Your task to perform on an android device: open the mobile data screen to see how much data has been used Image 0: 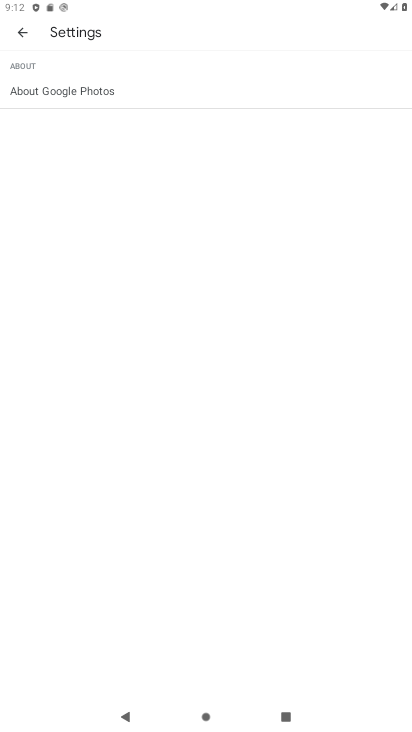
Step 0: press home button
Your task to perform on an android device: open the mobile data screen to see how much data has been used Image 1: 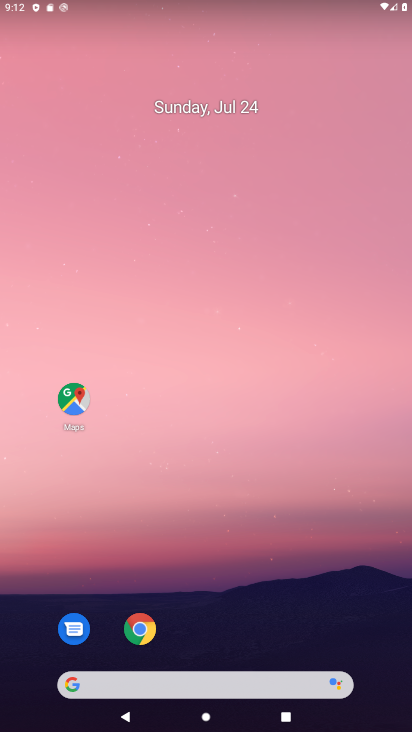
Step 1: drag from (188, 650) to (173, 45)
Your task to perform on an android device: open the mobile data screen to see how much data has been used Image 2: 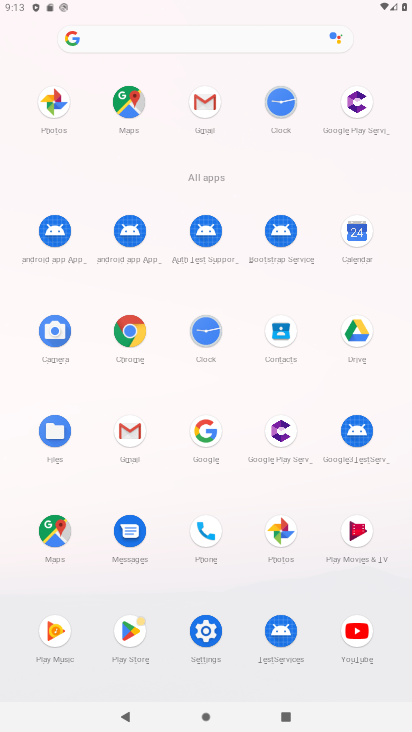
Step 2: click (197, 649)
Your task to perform on an android device: open the mobile data screen to see how much data has been used Image 3: 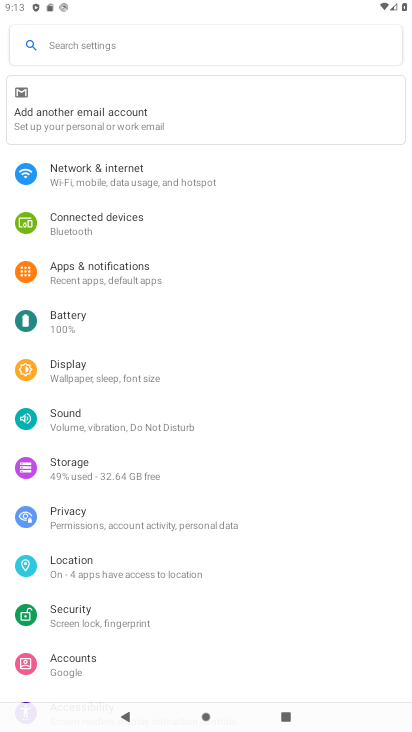
Step 3: task complete